Your task to perform on an android device: Show me recent news Image 0: 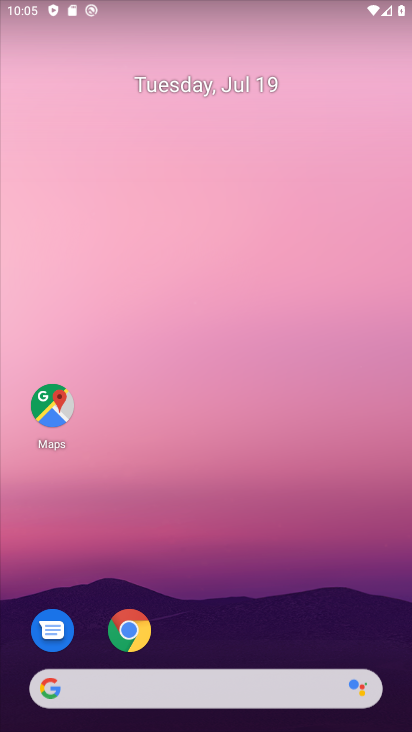
Step 0: drag from (2, 274) to (402, 292)
Your task to perform on an android device: Show me recent news Image 1: 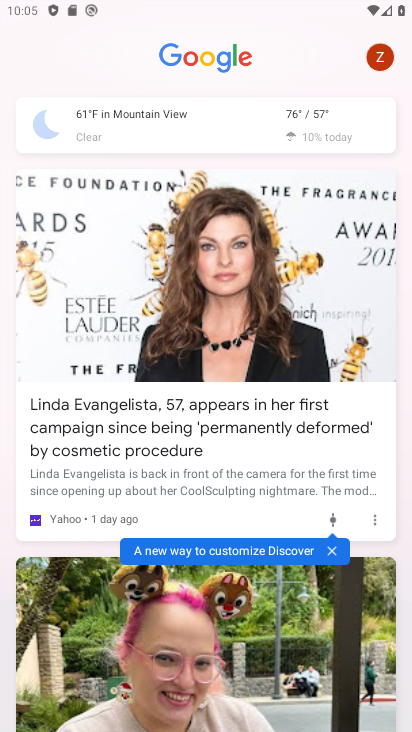
Step 1: task complete